Your task to perform on an android device: Open Amazon Image 0: 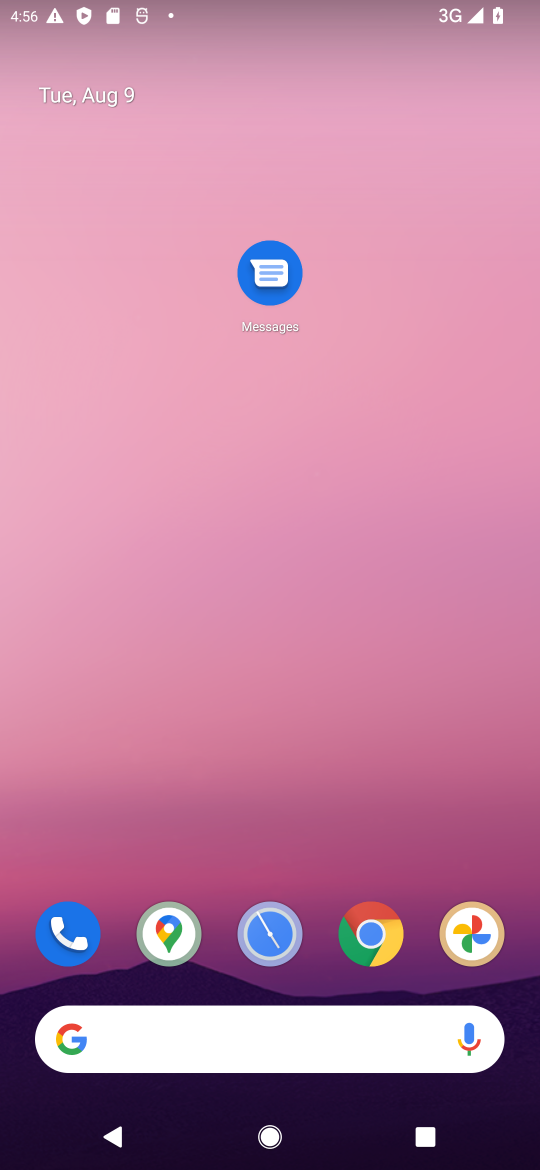
Step 0: click (363, 927)
Your task to perform on an android device: Open Amazon Image 1: 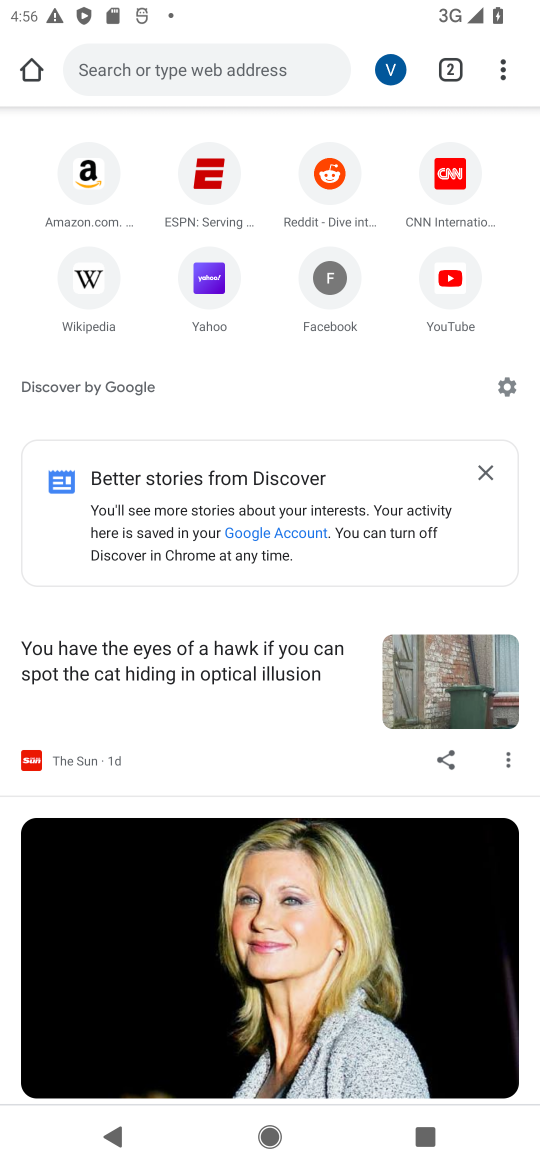
Step 1: click (110, 189)
Your task to perform on an android device: Open Amazon Image 2: 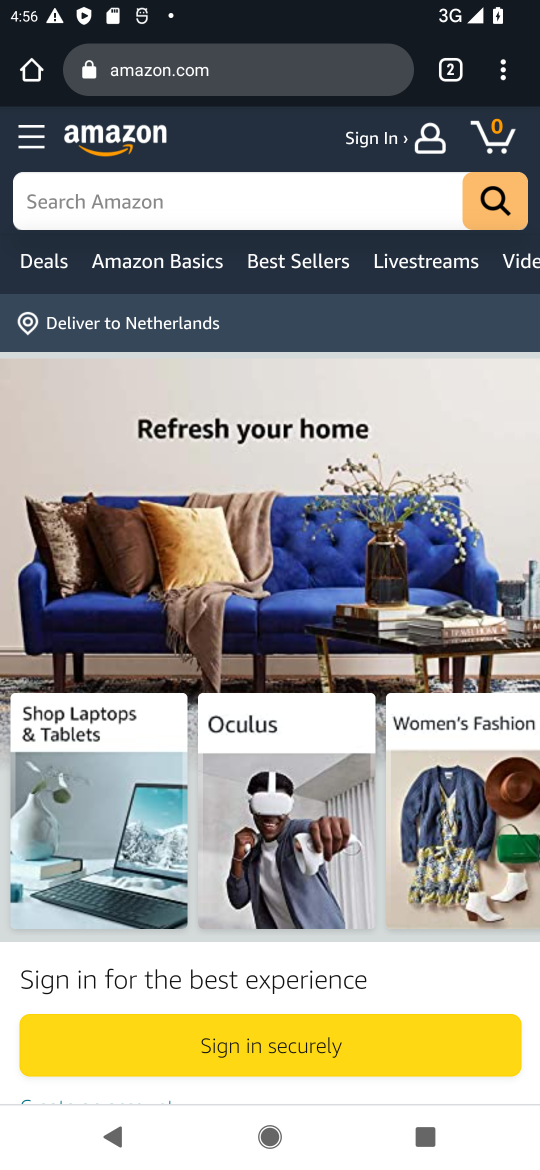
Step 2: task complete